Your task to perform on an android device: When is my next meeting? Image 0: 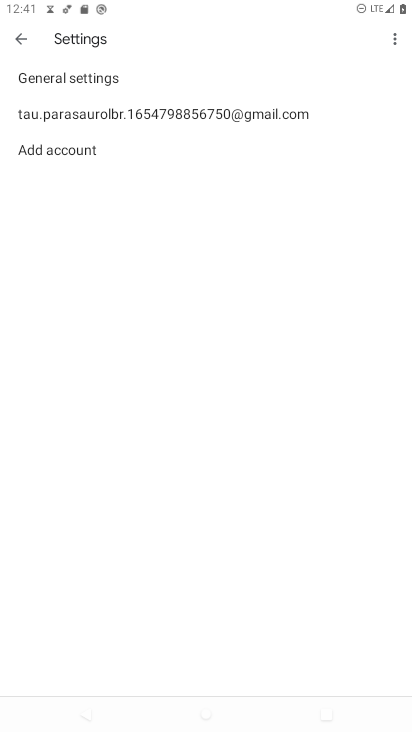
Step 0: press home button
Your task to perform on an android device: When is my next meeting? Image 1: 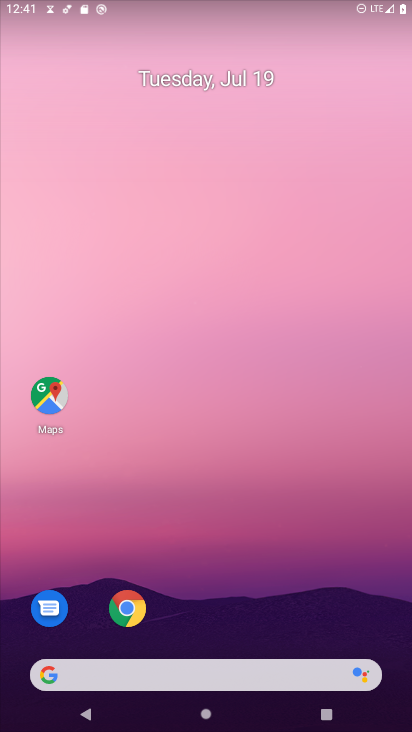
Step 1: drag from (211, 613) to (378, 6)
Your task to perform on an android device: When is my next meeting? Image 2: 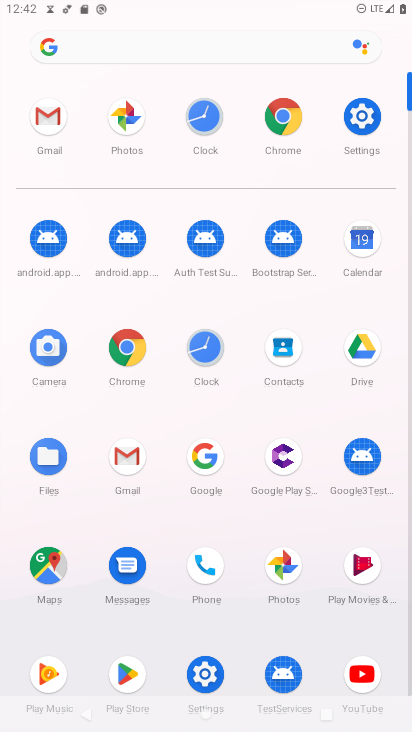
Step 2: click (367, 237)
Your task to perform on an android device: When is my next meeting? Image 3: 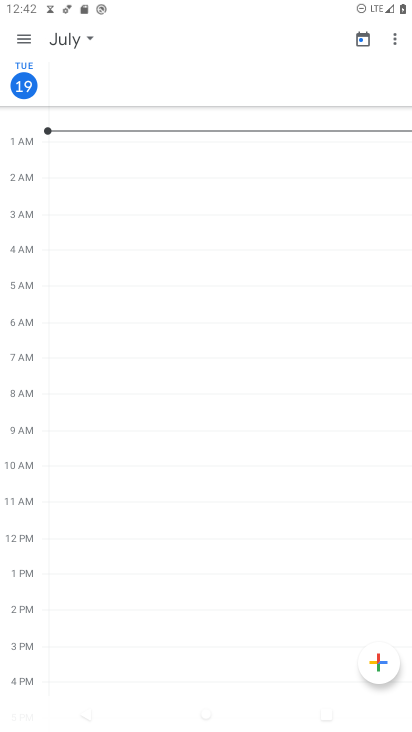
Step 3: click (97, 26)
Your task to perform on an android device: When is my next meeting? Image 4: 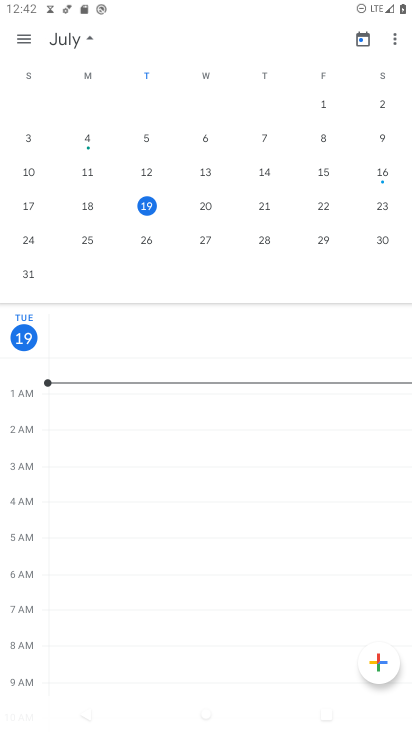
Step 4: click (207, 201)
Your task to perform on an android device: When is my next meeting? Image 5: 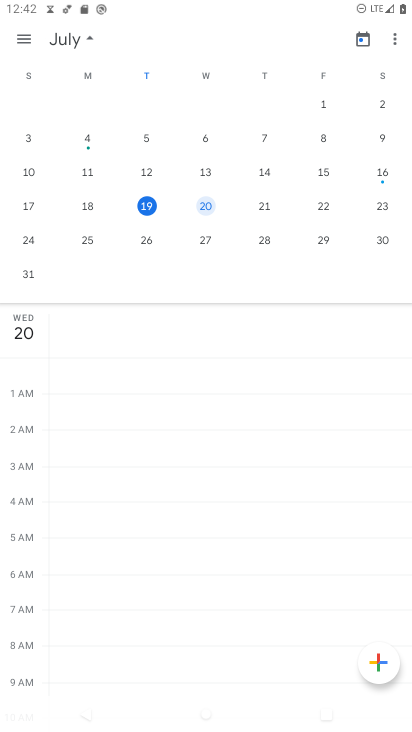
Step 5: task complete